Your task to perform on an android device: Open accessibility settings Image 0: 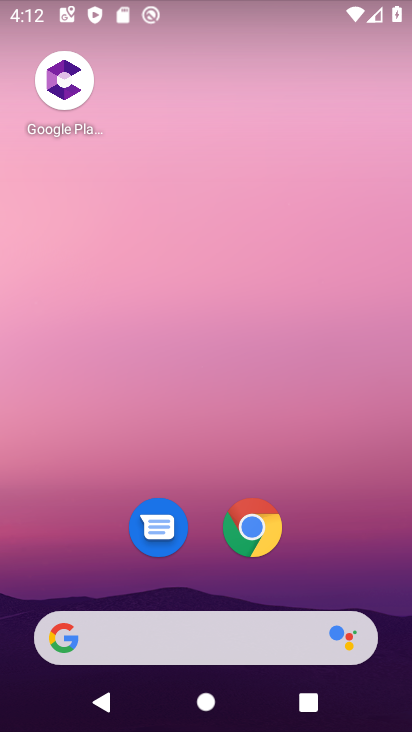
Step 0: drag from (336, 525) to (250, 32)
Your task to perform on an android device: Open accessibility settings Image 1: 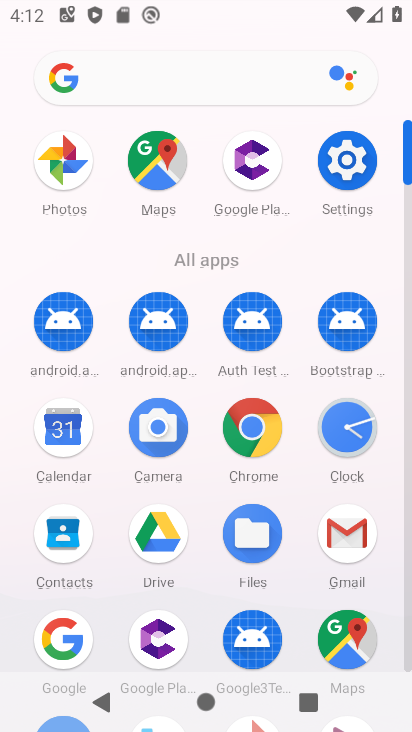
Step 1: drag from (3, 590) to (9, 227)
Your task to perform on an android device: Open accessibility settings Image 2: 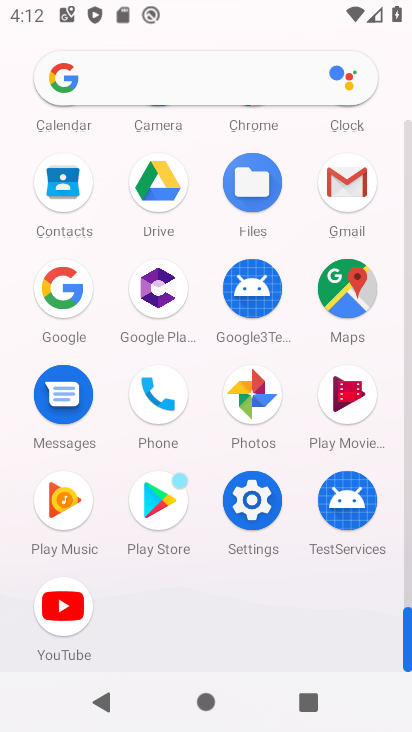
Step 2: click (249, 501)
Your task to perform on an android device: Open accessibility settings Image 3: 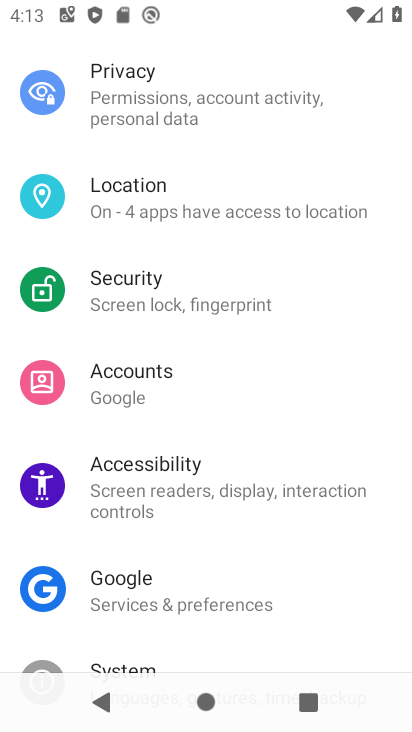
Step 3: click (147, 490)
Your task to perform on an android device: Open accessibility settings Image 4: 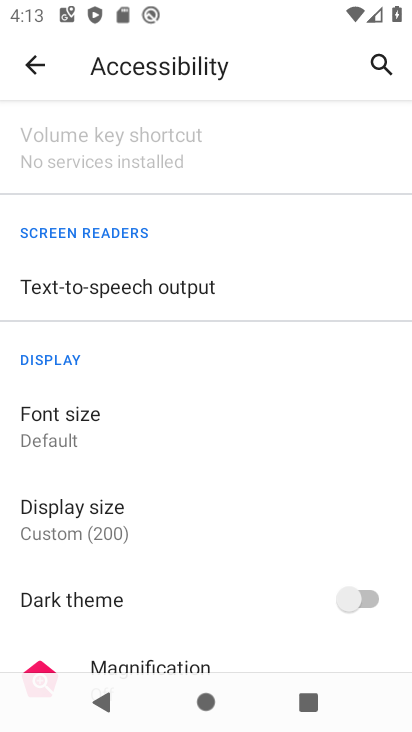
Step 4: task complete